Your task to perform on an android device: find snoozed emails in the gmail app Image 0: 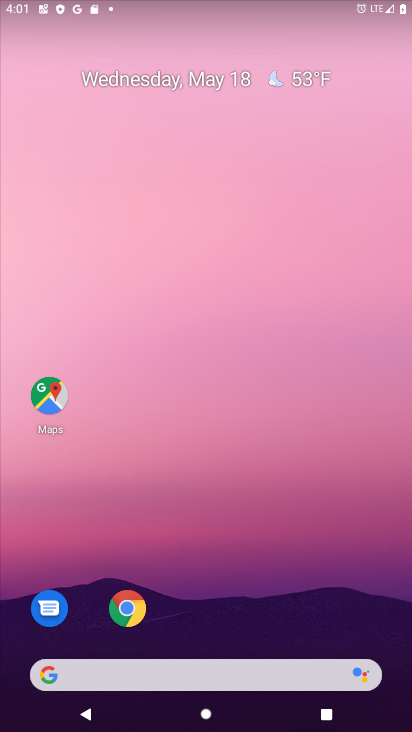
Step 0: drag from (356, 639) to (310, 13)
Your task to perform on an android device: find snoozed emails in the gmail app Image 1: 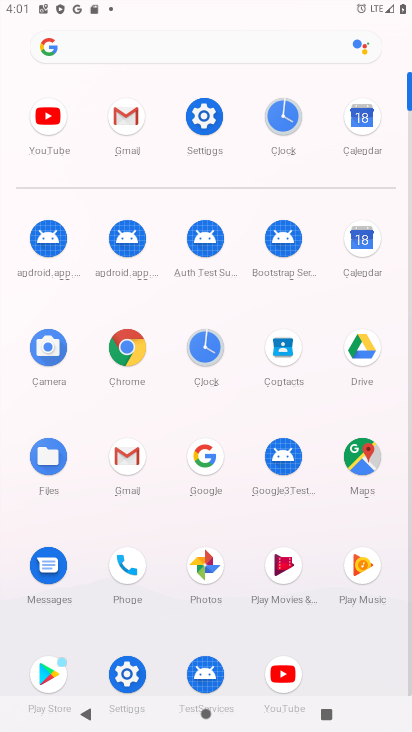
Step 1: click (116, 109)
Your task to perform on an android device: find snoozed emails in the gmail app Image 2: 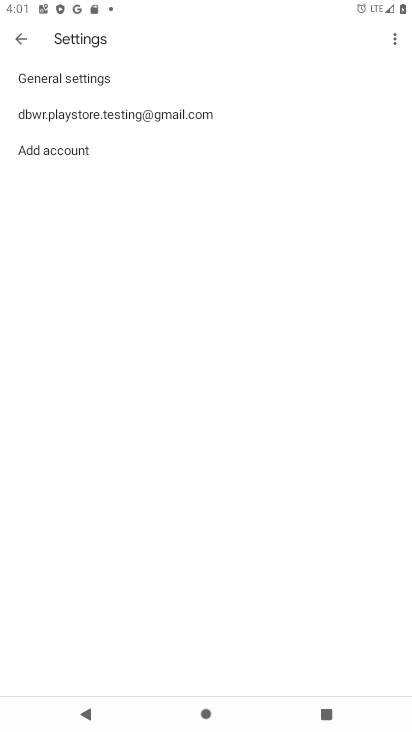
Step 2: click (25, 48)
Your task to perform on an android device: find snoozed emails in the gmail app Image 3: 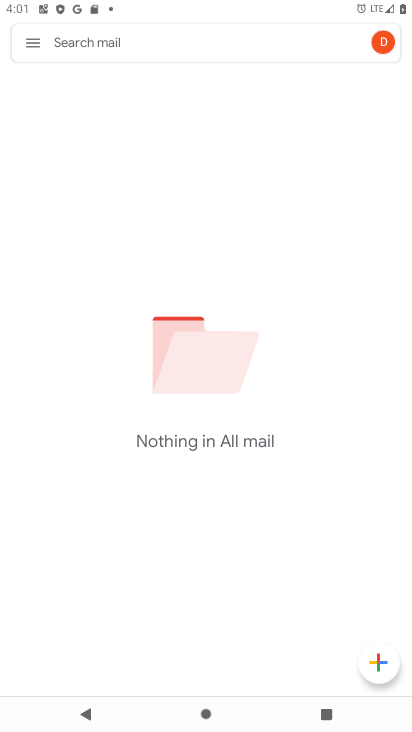
Step 3: click (31, 42)
Your task to perform on an android device: find snoozed emails in the gmail app Image 4: 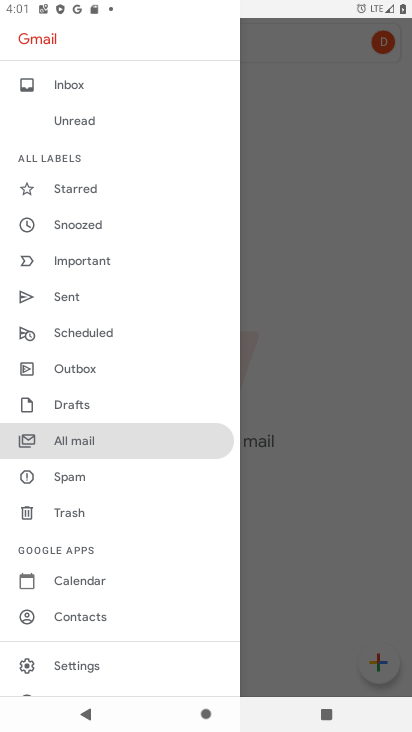
Step 4: click (80, 222)
Your task to perform on an android device: find snoozed emails in the gmail app Image 5: 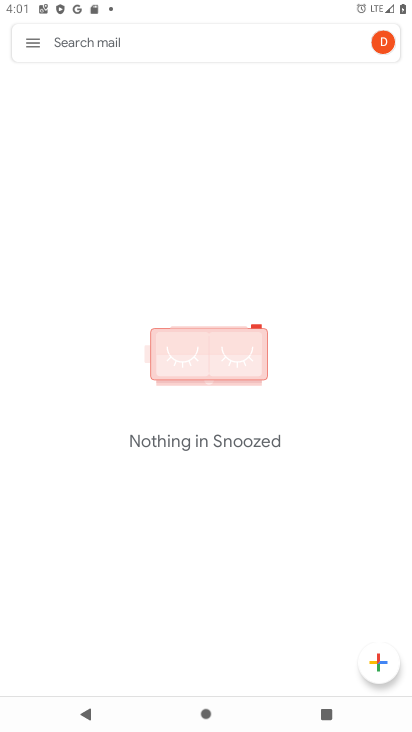
Step 5: task complete